Your task to perform on an android device: Go to network settings Image 0: 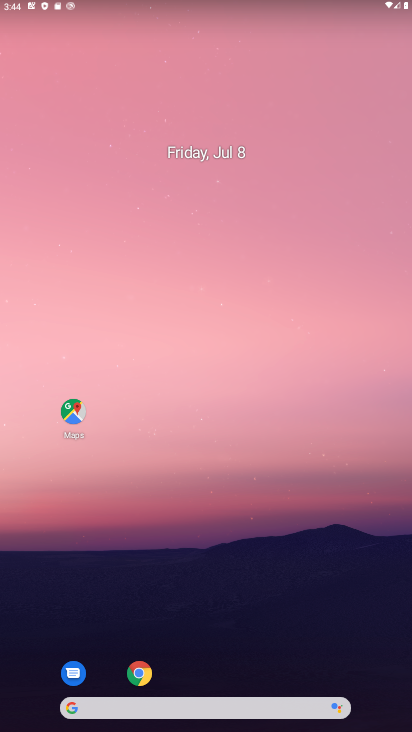
Step 0: drag from (275, 675) to (307, 18)
Your task to perform on an android device: Go to network settings Image 1: 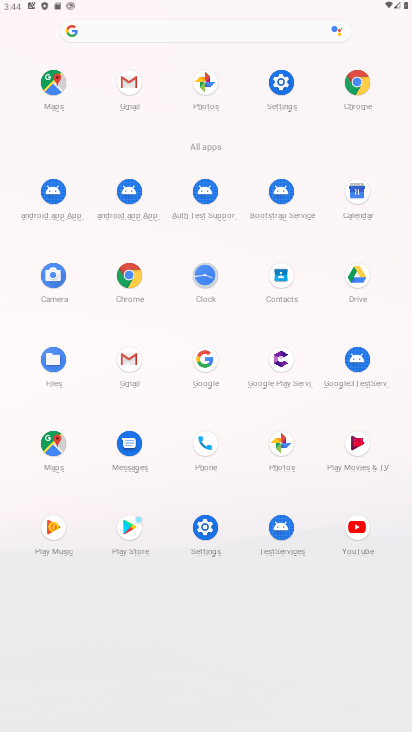
Step 1: click (280, 83)
Your task to perform on an android device: Go to network settings Image 2: 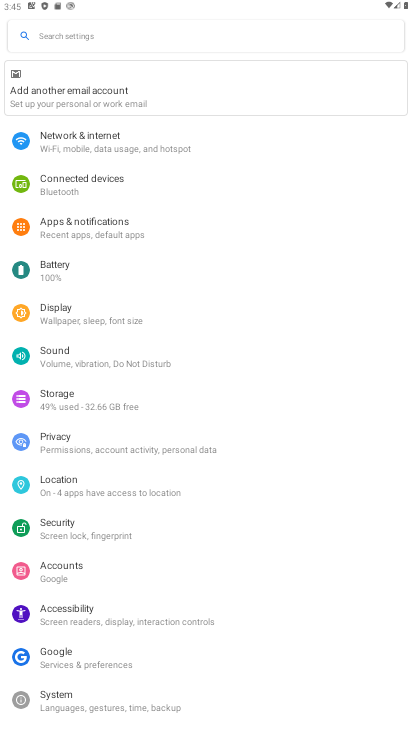
Step 2: click (104, 145)
Your task to perform on an android device: Go to network settings Image 3: 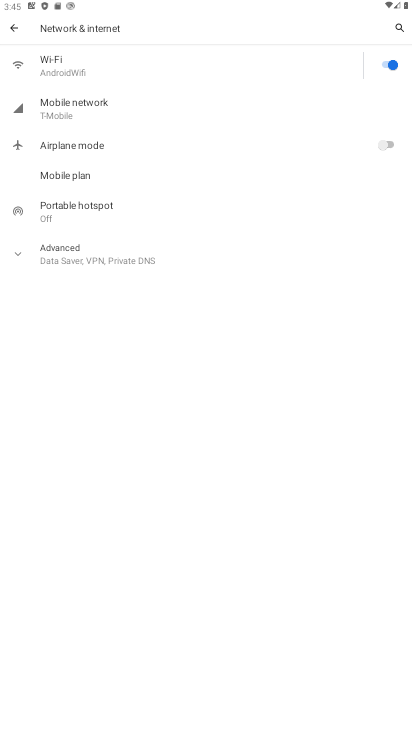
Step 3: click (56, 113)
Your task to perform on an android device: Go to network settings Image 4: 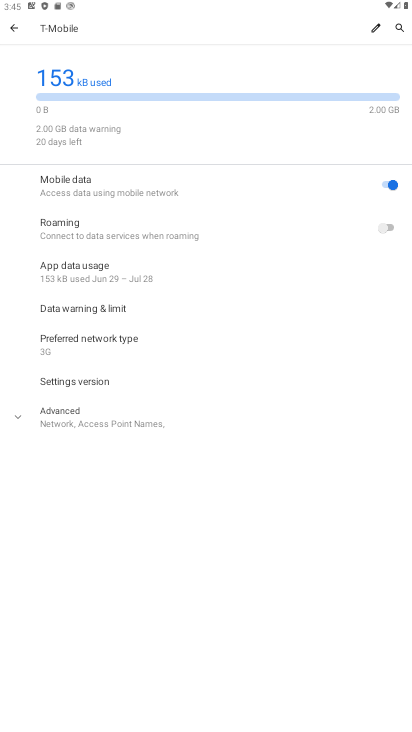
Step 4: click (18, 416)
Your task to perform on an android device: Go to network settings Image 5: 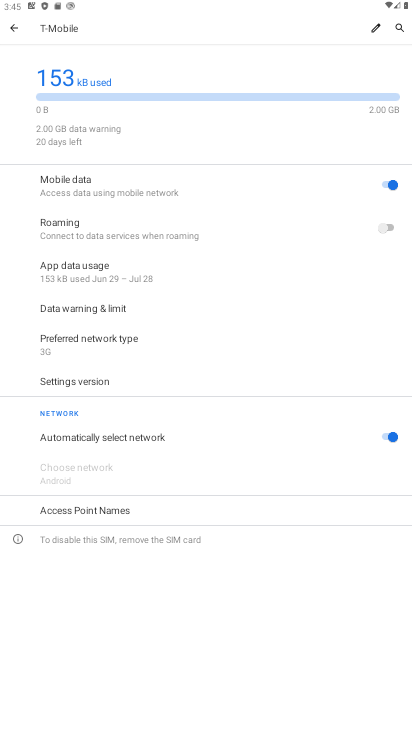
Step 5: task complete